Your task to perform on an android device: find which apps use the phone's location Image 0: 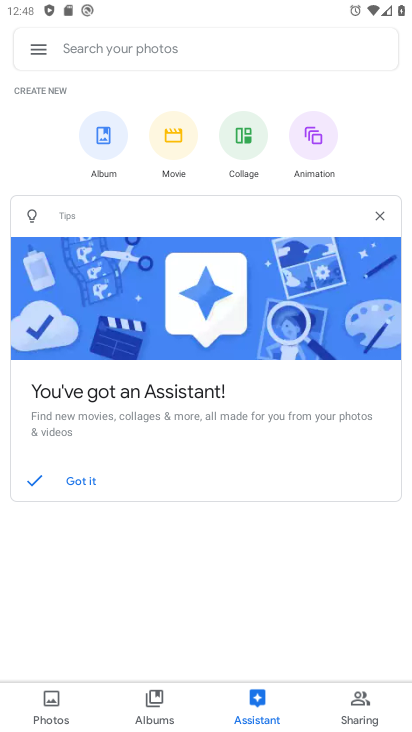
Step 0: press home button
Your task to perform on an android device: find which apps use the phone's location Image 1: 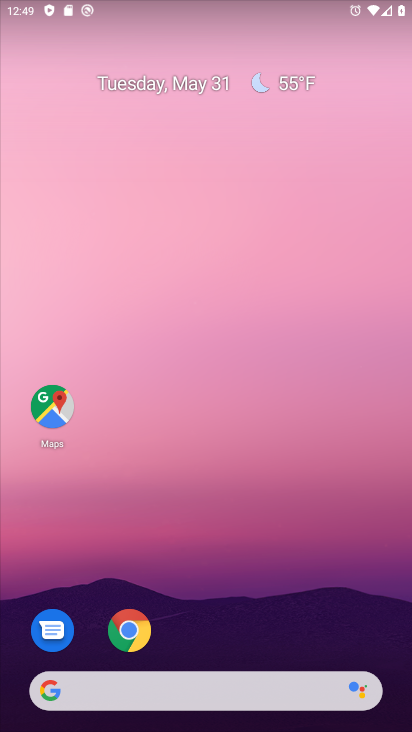
Step 1: drag from (191, 669) to (262, 121)
Your task to perform on an android device: find which apps use the phone's location Image 2: 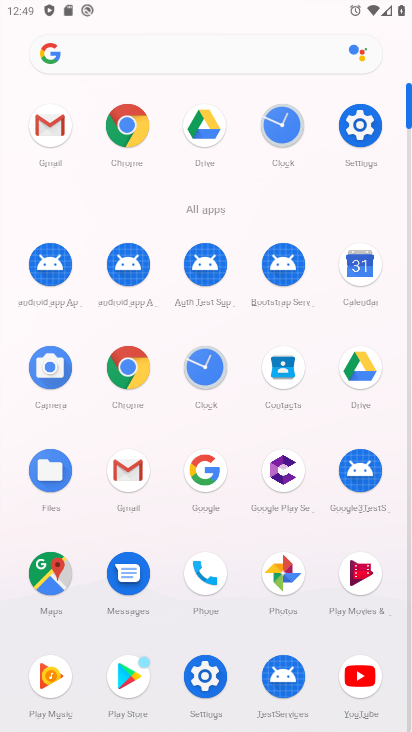
Step 2: click (377, 124)
Your task to perform on an android device: find which apps use the phone's location Image 3: 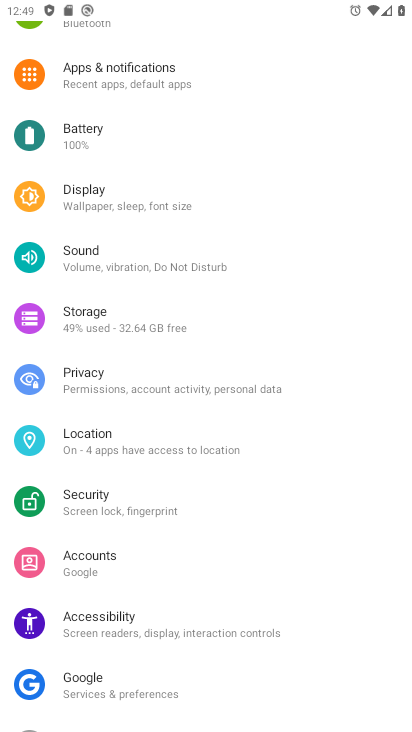
Step 3: click (117, 442)
Your task to perform on an android device: find which apps use the phone's location Image 4: 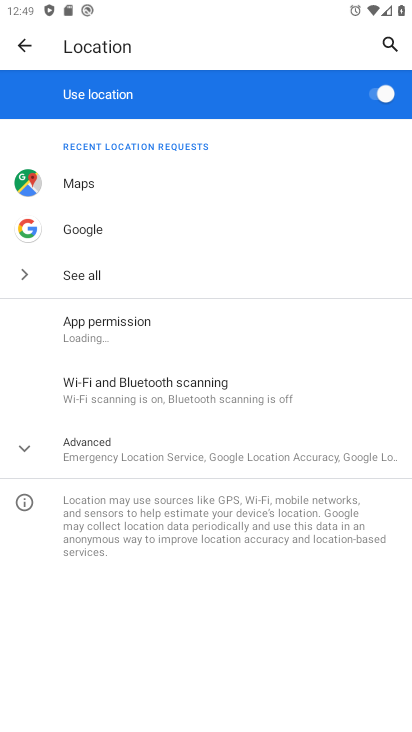
Step 4: click (114, 319)
Your task to perform on an android device: find which apps use the phone's location Image 5: 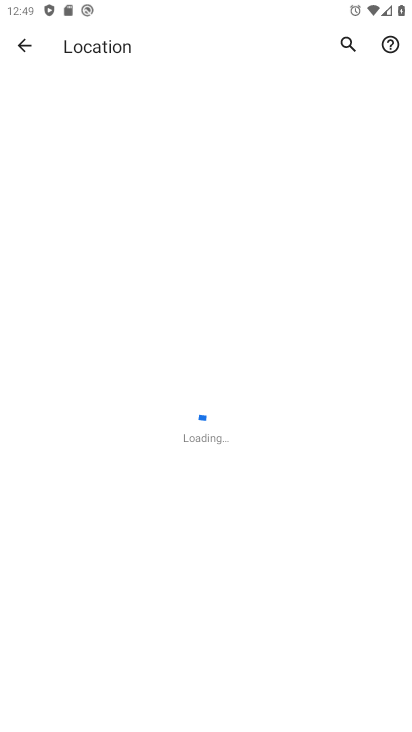
Step 5: task complete